Your task to perform on an android device: Go to location settings Image 0: 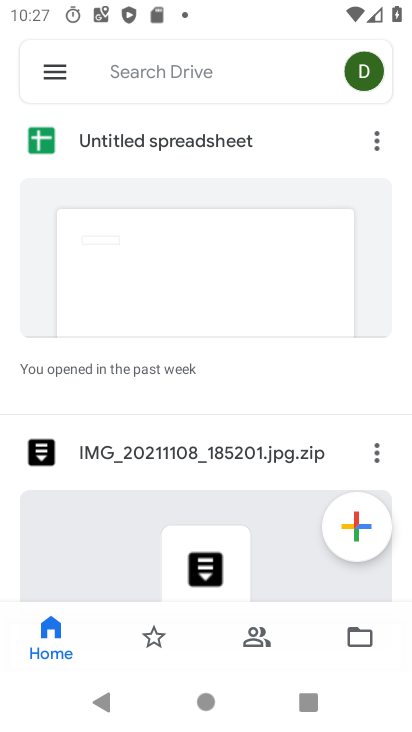
Step 0: press home button
Your task to perform on an android device: Go to location settings Image 1: 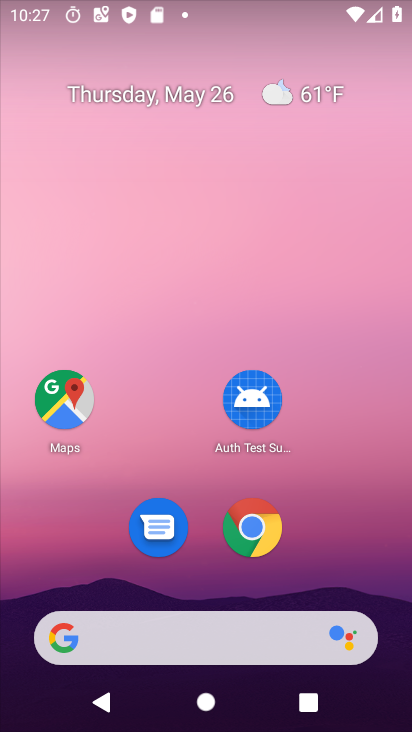
Step 1: drag from (312, 568) to (276, 144)
Your task to perform on an android device: Go to location settings Image 2: 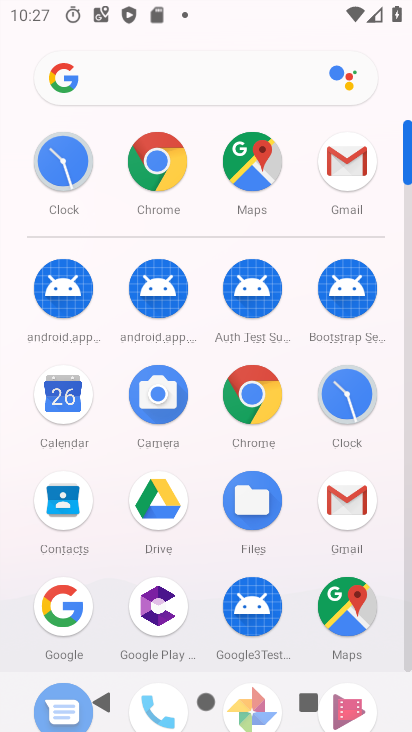
Step 2: drag from (387, 581) to (337, 251)
Your task to perform on an android device: Go to location settings Image 3: 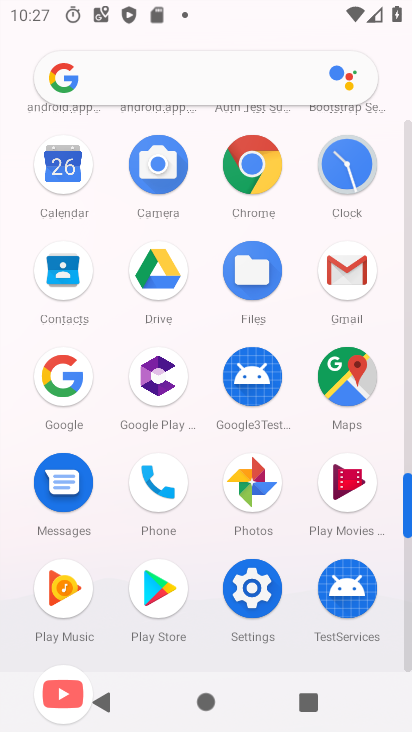
Step 3: click (266, 588)
Your task to perform on an android device: Go to location settings Image 4: 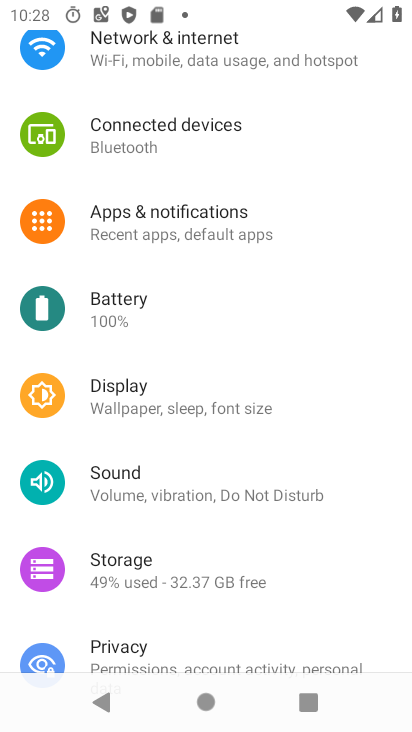
Step 4: drag from (173, 263) to (227, 714)
Your task to perform on an android device: Go to location settings Image 5: 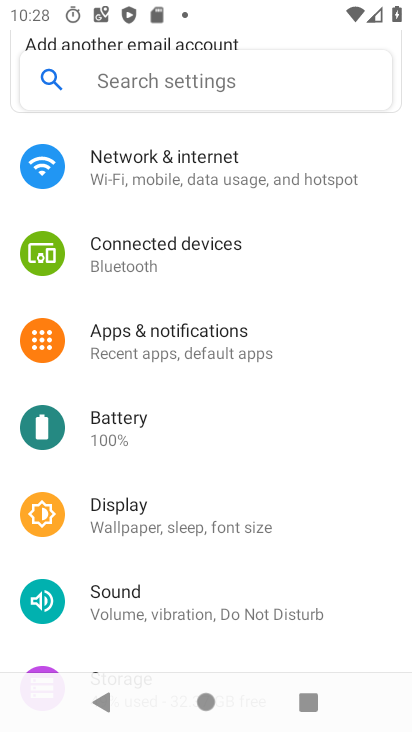
Step 5: drag from (203, 488) to (187, 47)
Your task to perform on an android device: Go to location settings Image 6: 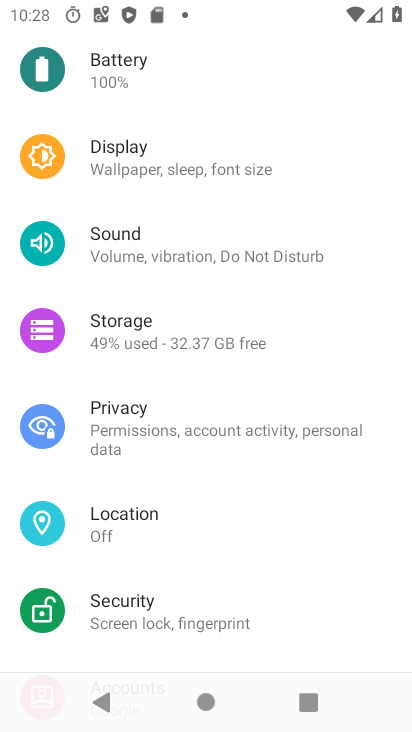
Step 6: drag from (224, 469) to (158, 194)
Your task to perform on an android device: Go to location settings Image 7: 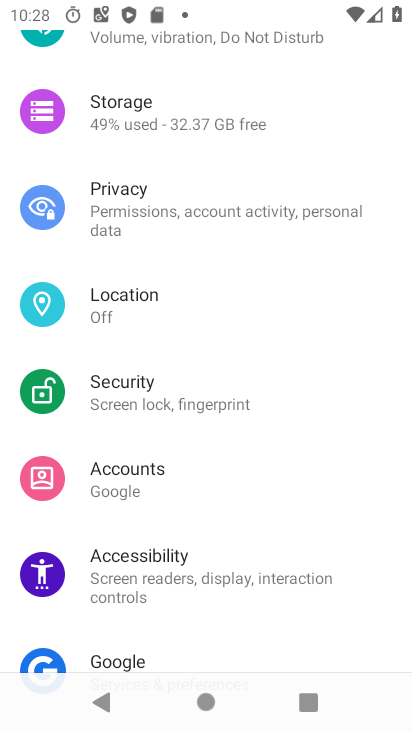
Step 7: click (129, 318)
Your task to perform on an android device: Go to location settings Image 8: 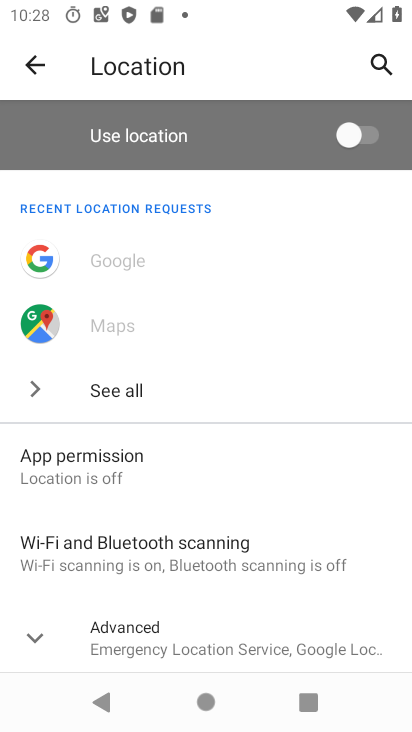
Step 8: task complete